Your task to perform on an android device: turn on javascript in the chrome app Image 0: 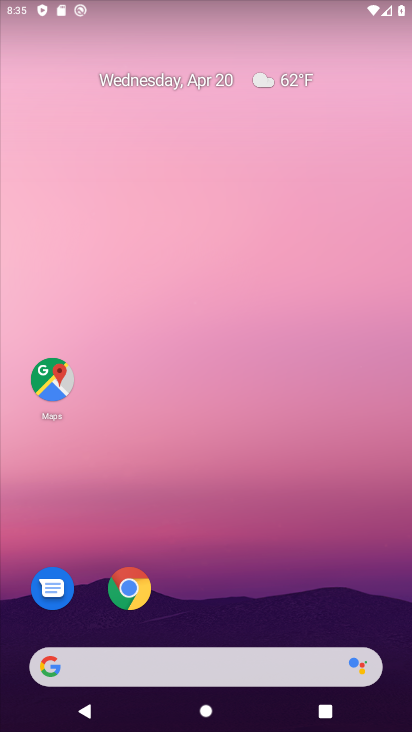
Step 0: drag from (220, 532) to (86, 5)
Your task to perform on an android device: turn on javascript in the chrome app Image 1: 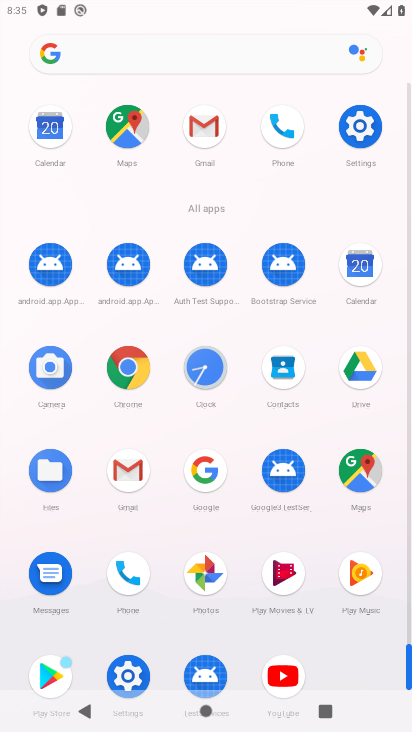
Step 1: drag from (14, 528) to (1, 284)
Your task to perform on an android device: turn on javascript in the chrome app Image 2: 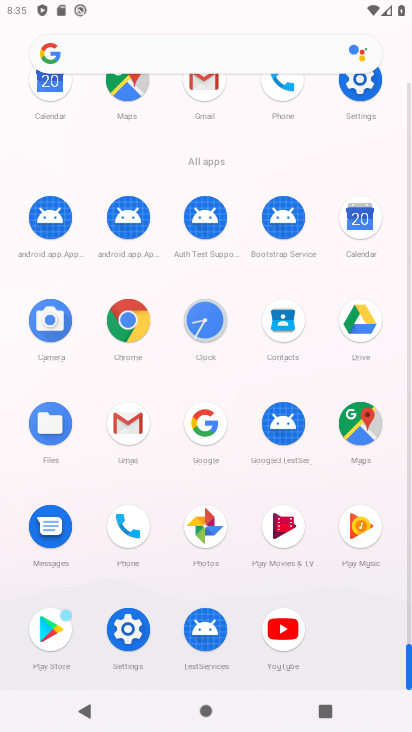
Step 2: click (129, 315)
Your task to perform on an android device: turn on javascript in the chrome app Image 3: 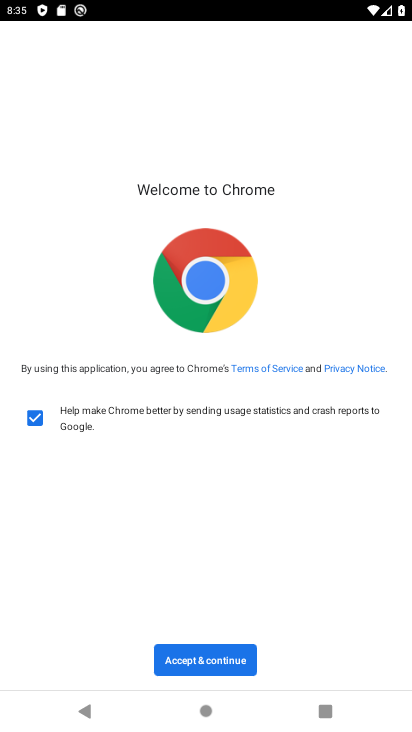
Step 3: click (216, 663)
Your task to perform on an android device: turn on javascript in the chrome app Image 4: 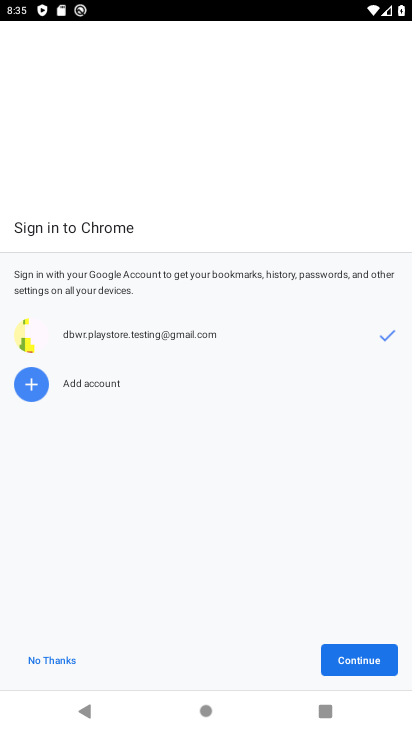
Step 4: click (360, 656)
Your task to perform on an android device: turn on javascript in the chrome app Image 5: 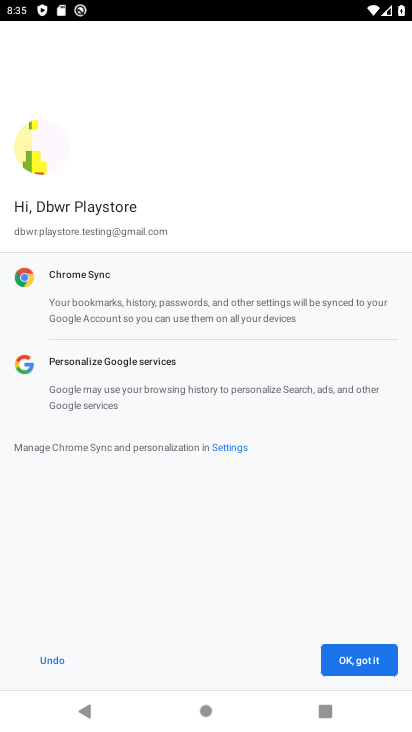
Step 5: click (360, 656)
Your task to perform on an android device: turn on javascript in the chrome app Image 6: 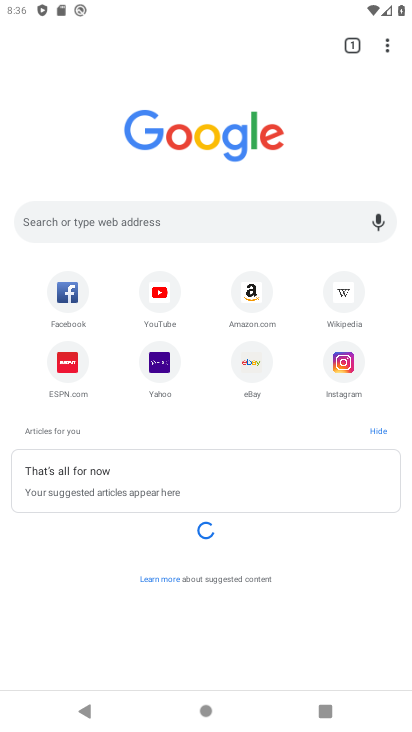
Step 6: drag from (388, 43) to (242, 380)
Your task to perform on an android device: turn on javascript in the chrome app Image 7: 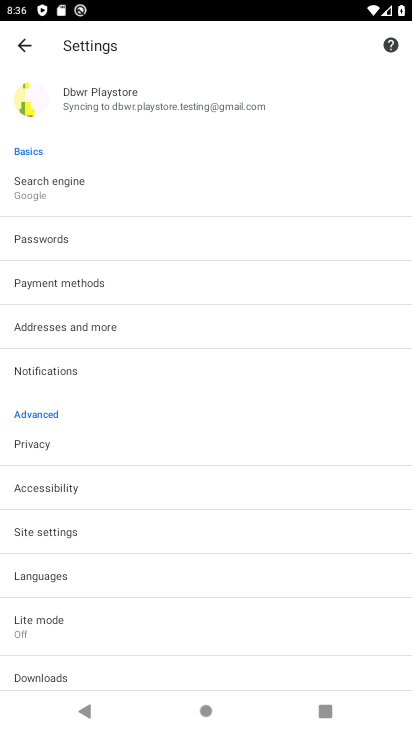
Step 7: click (51, 528)
Your task to perform on an android device: turn on javascript in the chrome app Image 8: 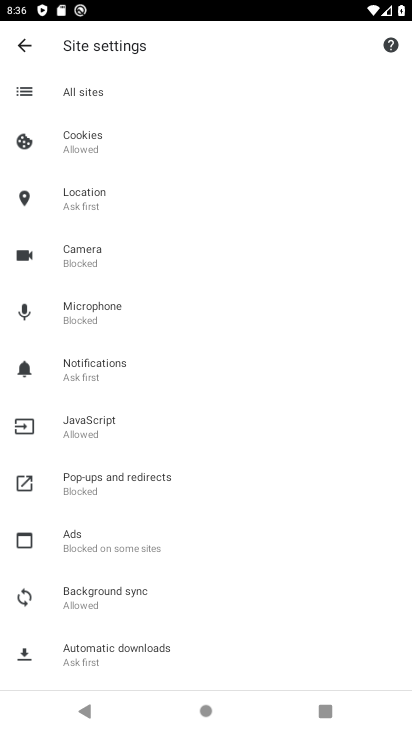
Step 8: click (110, 419)
Your task to perform on an android device: turn on javascript in the chrome app Image 9: 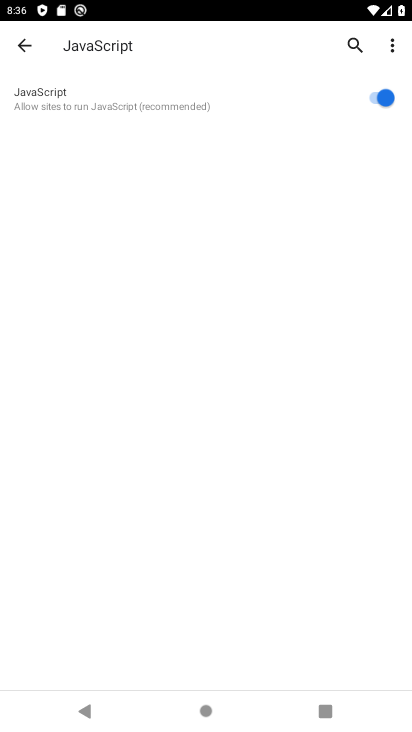
Step 9: task complete